Your task to perform on an android device: Open settings Image 0: 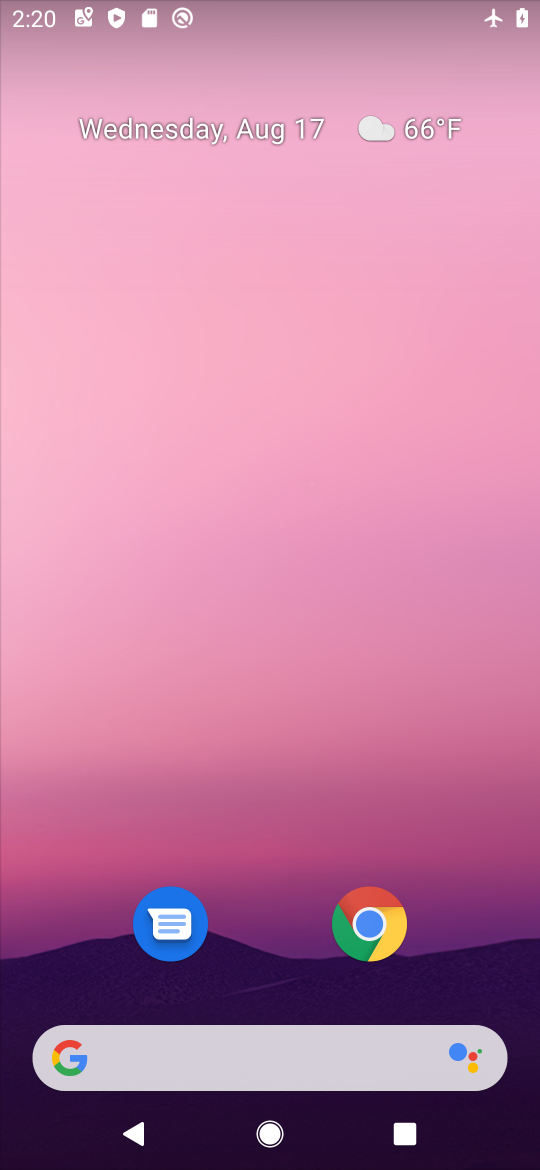
Step 0: drag from (219, 1063) to (296, 188)
Your task to perform on an android device: Open settings Image 1: 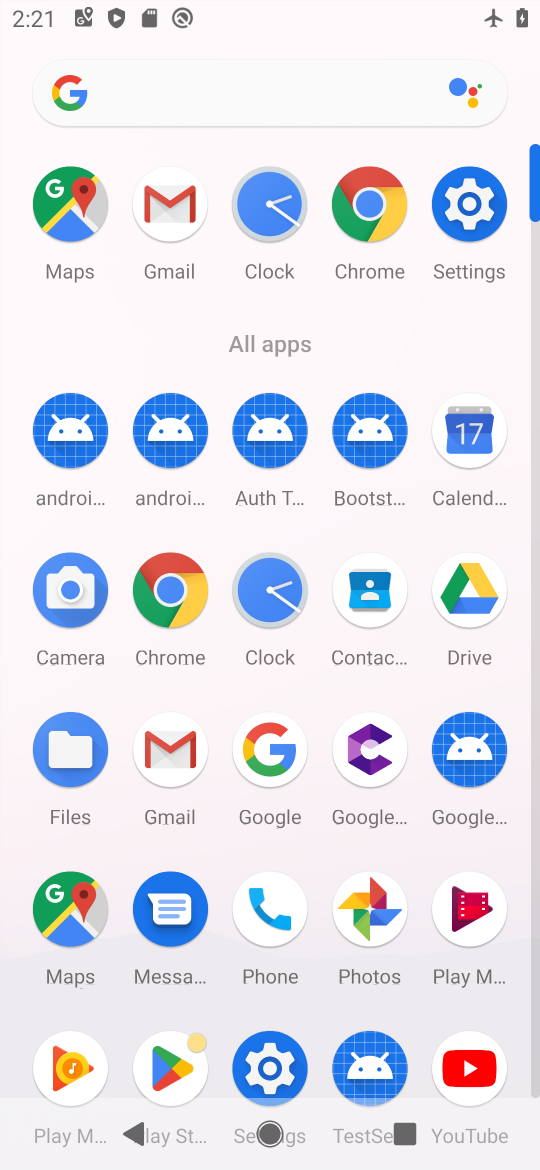
Step 1: click (478, 209)
Your task to perform on an android device: Open settings Image 2: 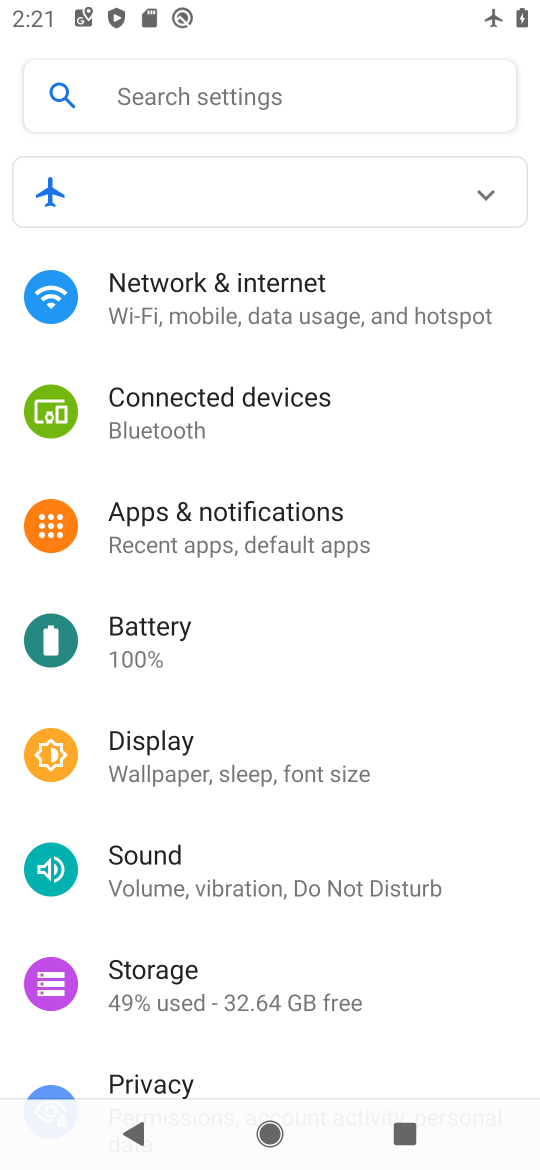
Step 2: task complete